Your task to perform on an android device: turn notification dots off Image 0: 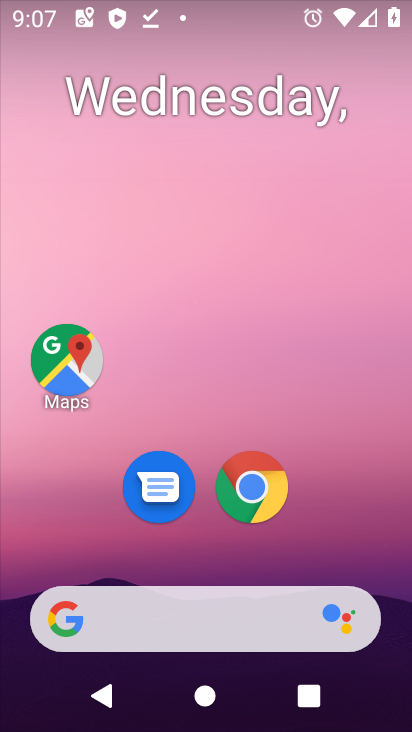
Step 0: drag from (252, 678) to (183, 351)
Your task to perform on an android device: turn notification dots off Image 1: 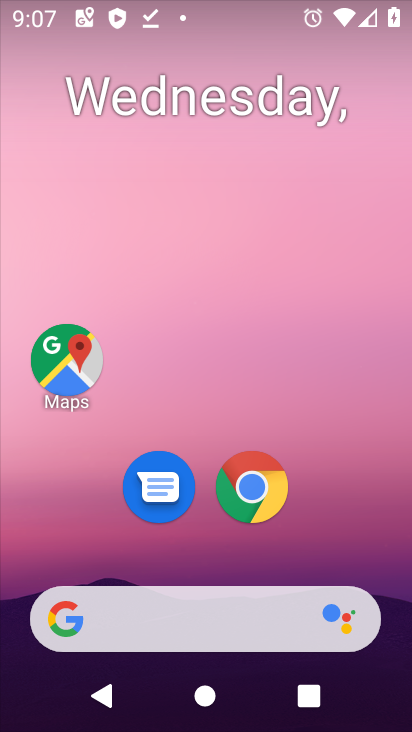
Step 1: drag from (257, 593) to (209, 184)
Your task to perform on an android device: turn notification dots off Image 2: 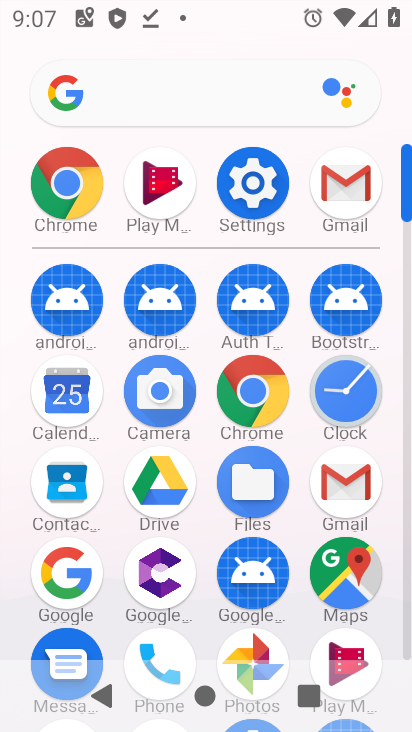
Step 2: click (248, 183)
Your task to perform on an android device: turn notification dots off Image 3: 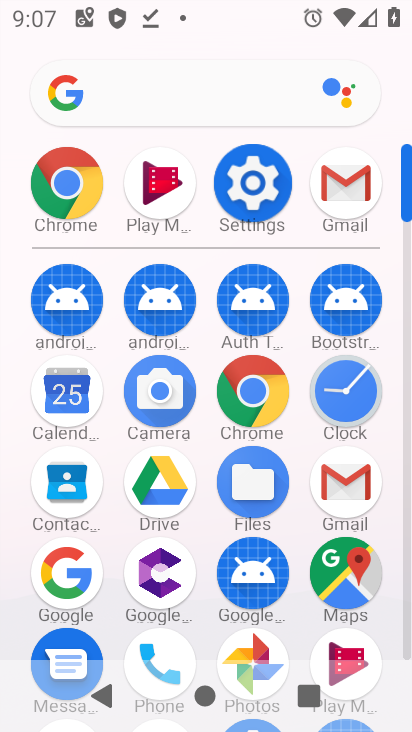
Step 3: click (255, 211)
Your task to perform on an android device: turn notification dots off Image 4: 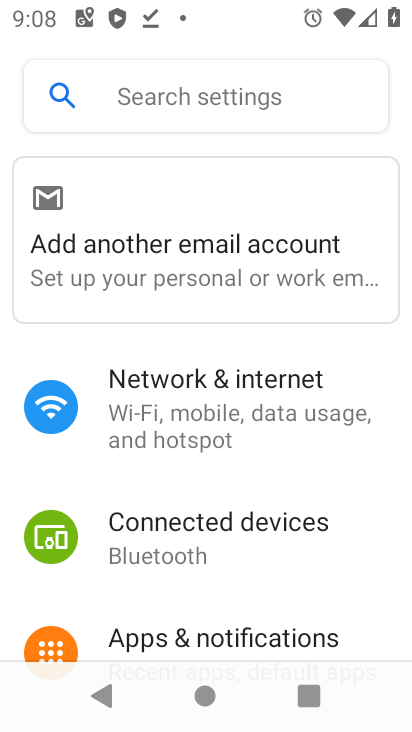
Step 4: drag from (215, 559) to (164, 290)
Your task to perform on an android device: turn notification dots off Image 5: 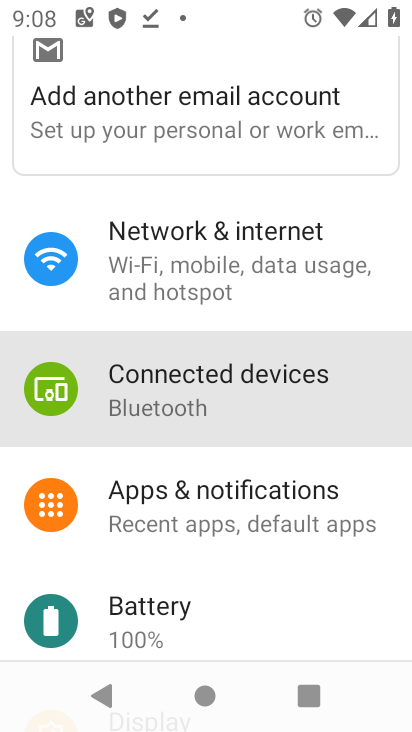
Step 5: drag from (234, 470) to (253, 249)
Your task to perform on an android device: turn notification dots off Image 6: 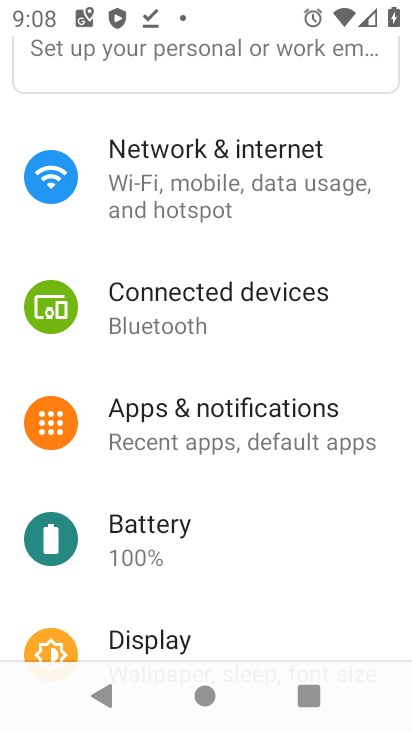
Step 6: click (178, 497)
Your task to perform on an android device: turn notification dots off Image 7: 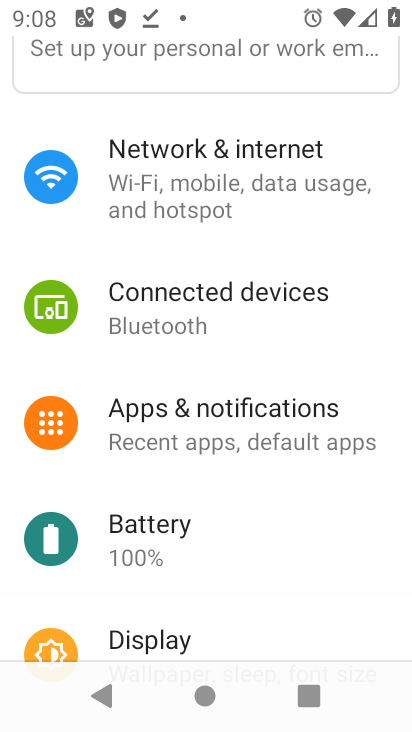
Step 7: click (175, 421)
Your task to perform on an android device: turn notification dots off Image 8: 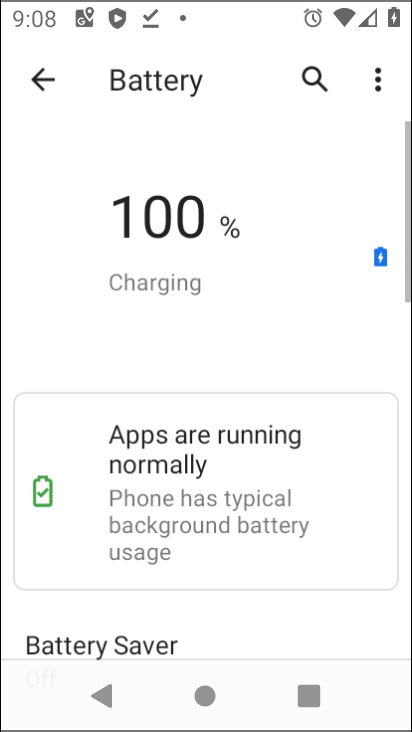
Step 8: click (175, 420)
Your task to perform on an android device: turn notification dots off Image 9: 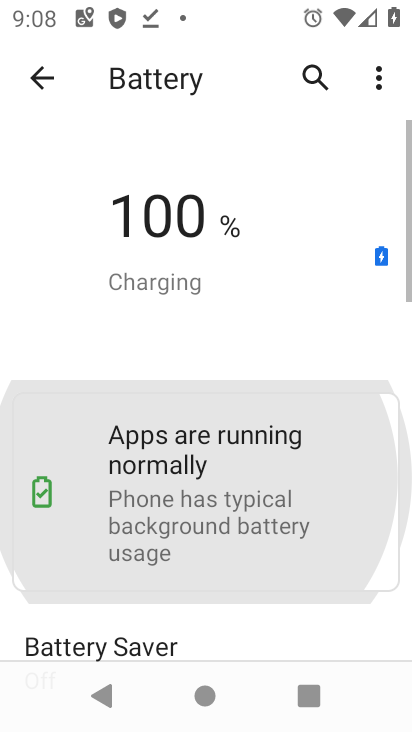
Step 9: click (175, 420)
Your task to perform on an android device: turn notification dots off Image 10: 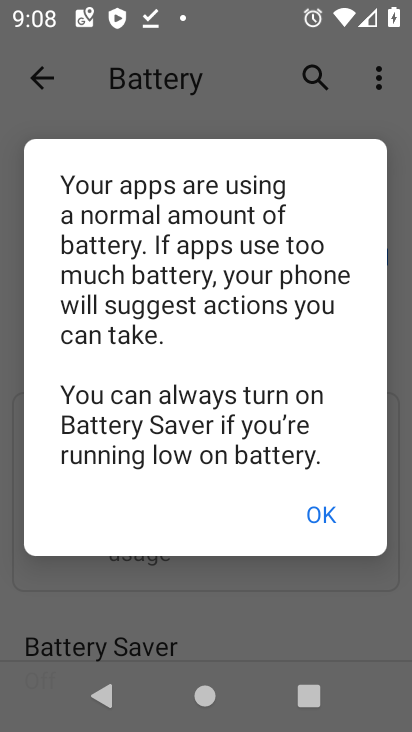
Step 10: click (320, 512)
Your task to perform on an android device: turn notification dots off Image 11: 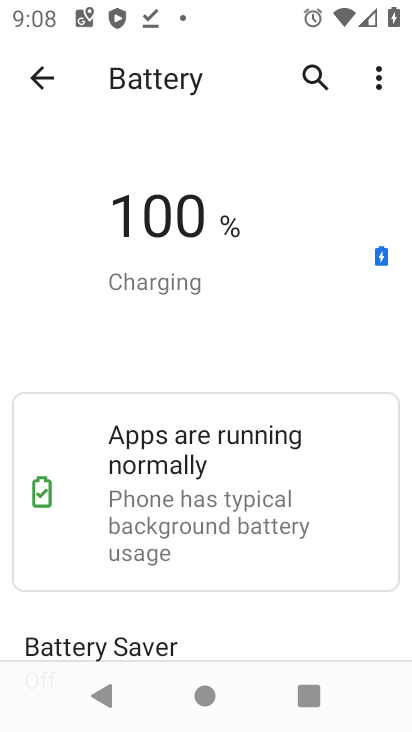
Step 11: click (33, 75)
Your task to perform on an android device: turn notification dots off Image 12: 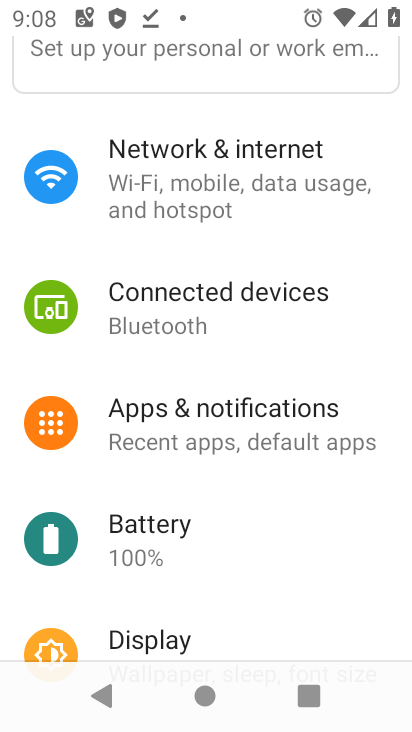
Step 12: click (211, 428)
Your task to perform on an android device: turn notification dots off Image 13: 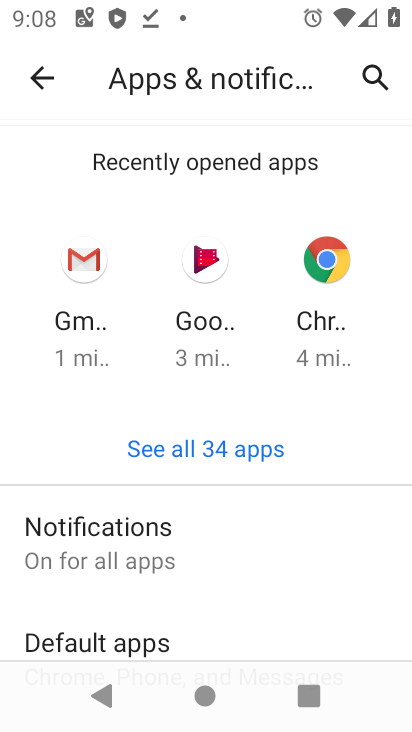
Step 13: drag from (102, 555) to (48, 221)
Your task to perform on an android device: turn notification dots off Image 14: 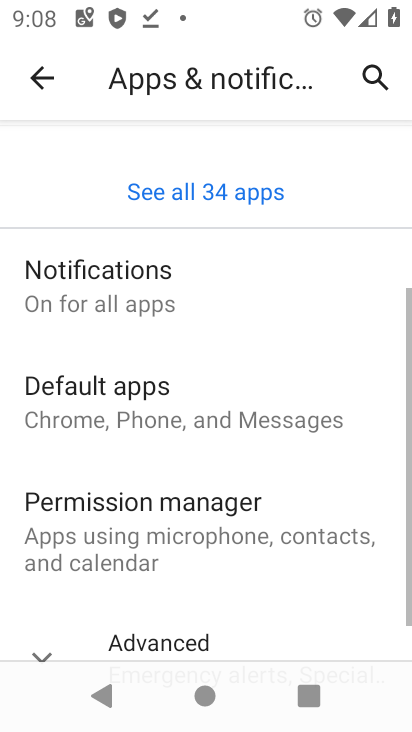
Step 14: drag from (201, 493) to (131, 131)
Your task to perform on an android device: turn notification dots off Image 15: 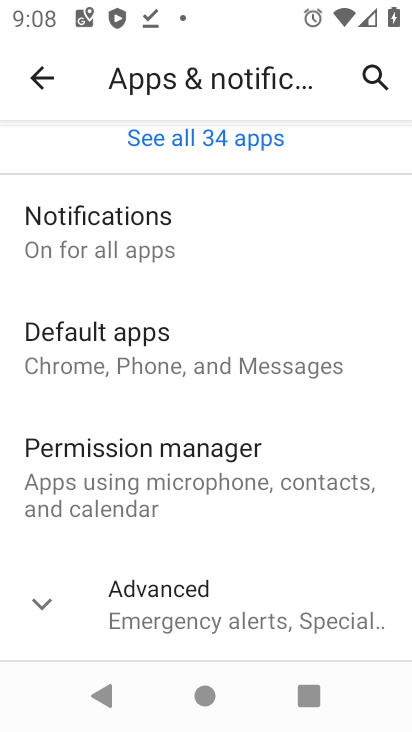
Step 15: drag from (161, 524) to (113, 198)
Your task to perform on an android device: turn notification dots off Image 16: 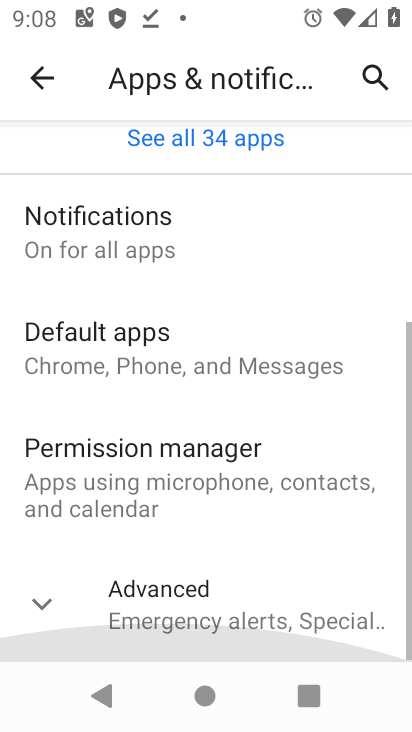
Step 16: drag from (140, 497) to (90, 127)
Your task to perform on an android device: turn notification dots off Image 17: 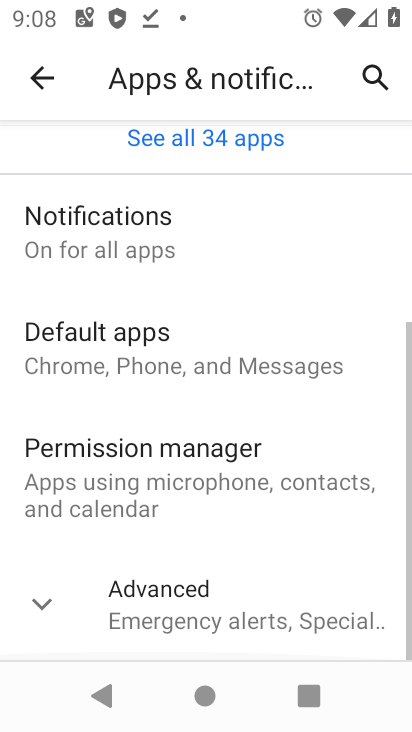
Step 17: click (181, 607)
Your task to perform on an android device: turn notification dots off Image 18: 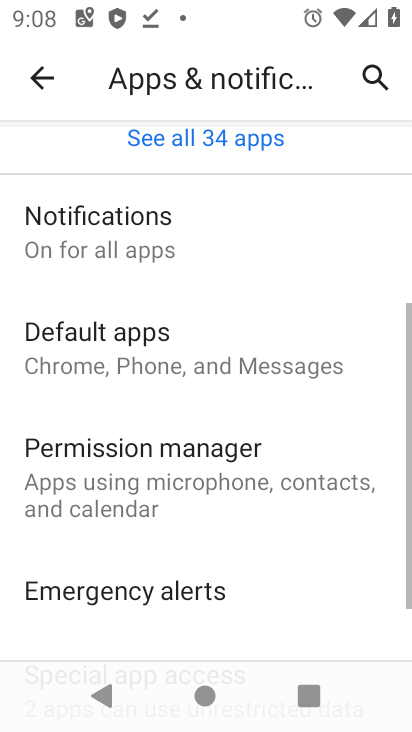
Step 18: drag from (180, 606) to (121, 192)
Your task to perform on an android device: turn notification dots off Image 19: 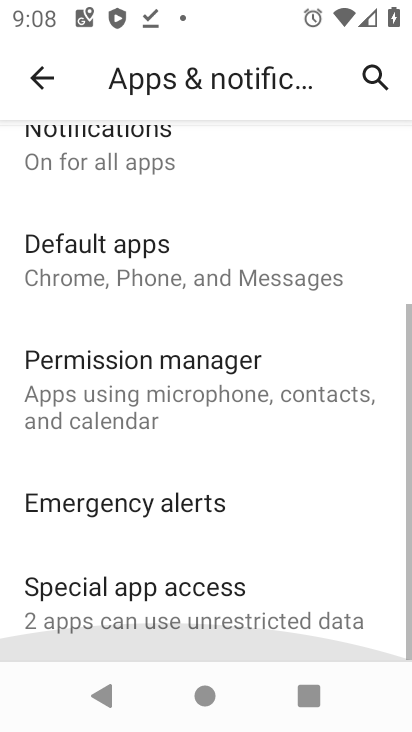
Step 19: drag from (159, 487) to (80, 280)
Your task to perform on an android device: turn notification dots off Image 20: 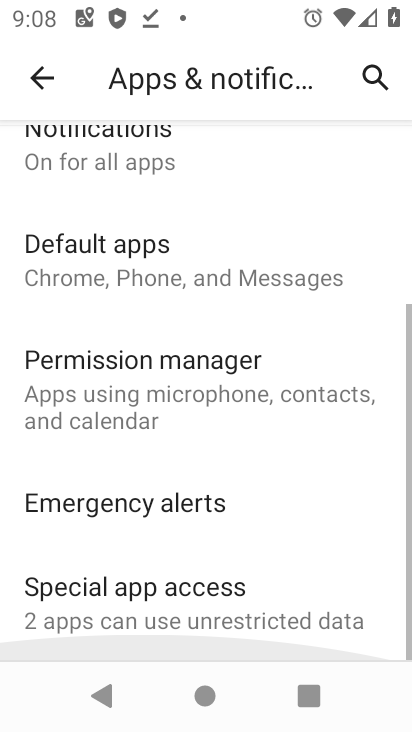
Step 20: drag from (199, 554) to (182, 243)
Your task to perform on an android device: turn notification dots off Image 21: 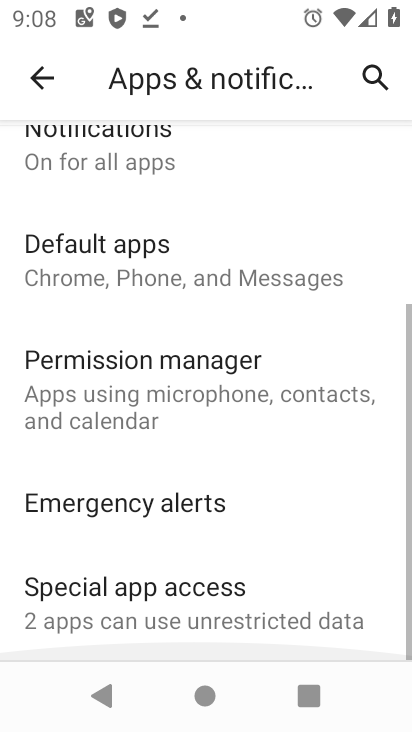
Step 21: drag from (235, 349) to (235, 142)
Your task to perform on an android device: turn notification dots off Image 22: 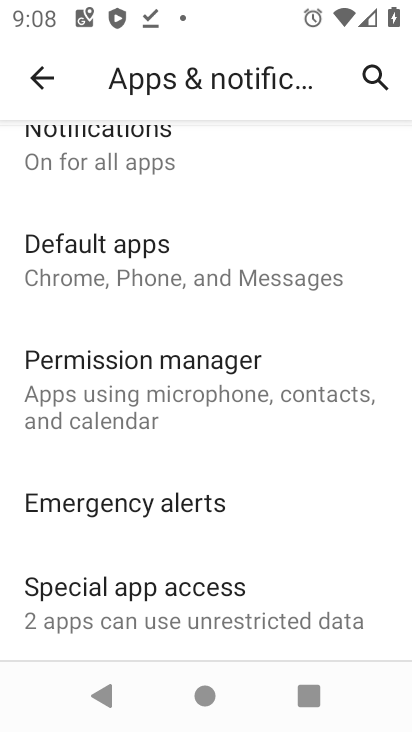
Step 22: drag from (147, 281) to (171, 465)
Your task to perform on an android device: turn notification dots off Image 23: 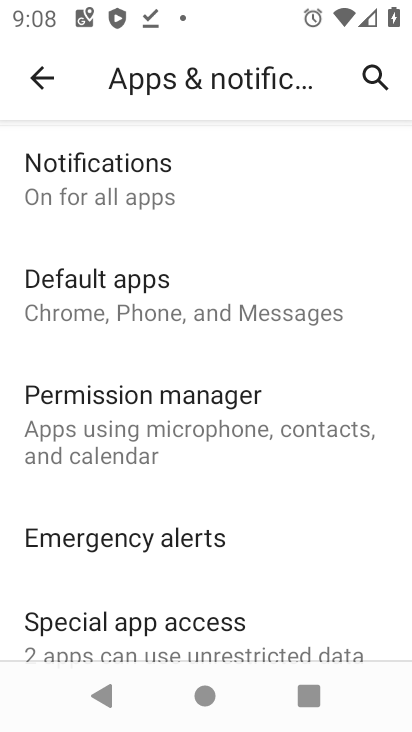
Step 23: click (88, 176)
Your task to perform on an android device: turn notification dots off Image 24: 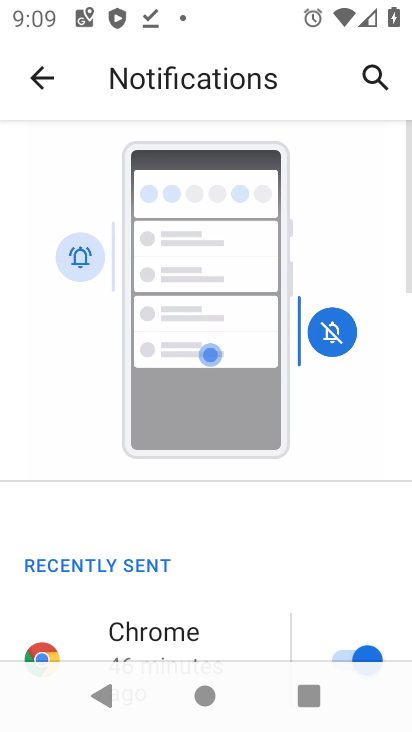
Step 24: drag from (245, 522) to (195, 232)
Your task to perform on an android device: turn notification dots off Image 25: 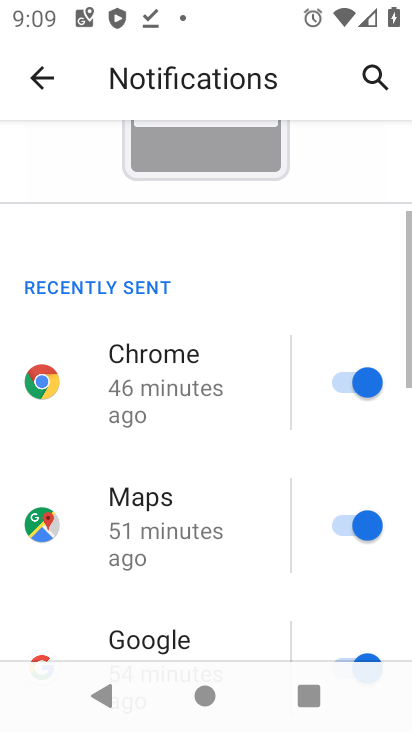
Step 25: drag from (237, 480) to (160, 104)
Your task to perform on an android device: turn notification dots off Image 26: 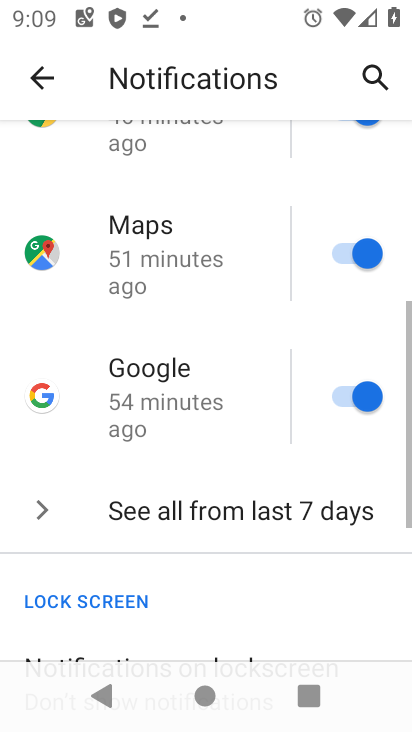
Step 26: drag from (228, 451) to (169, 189)
Your task to perform on an android device: turn notification dots off Image 27: 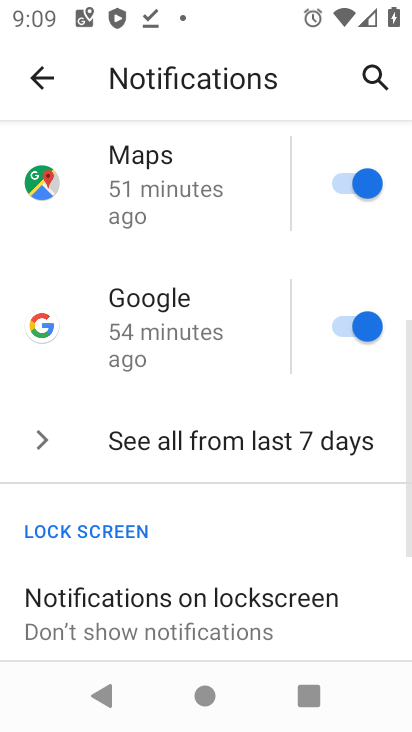
Step 27: click (156, 111)
Your task to perform on an android device: turn notification dots off Image 28: 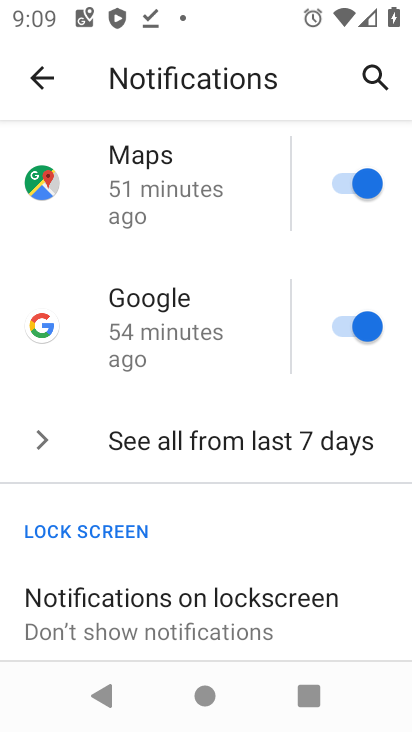
Step 28: drag from (186, 411) to (172, 100)
Your task to perform on an android device: turn notification dots off Image 29: 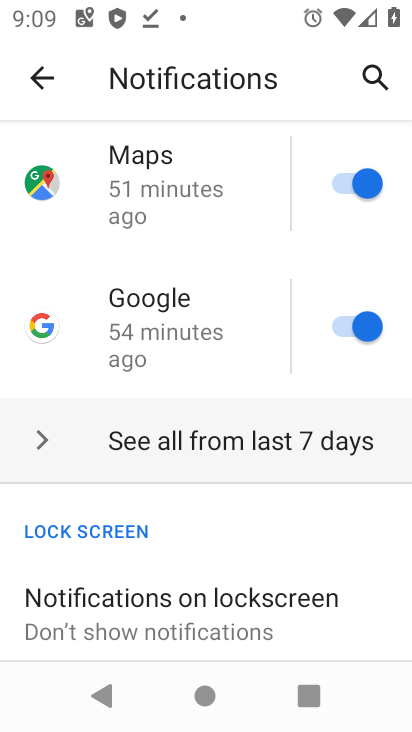
Step 29: drag from (259, 535) to (204, 171)
Your task to perform on an android device: turn notification dots off Image 30: 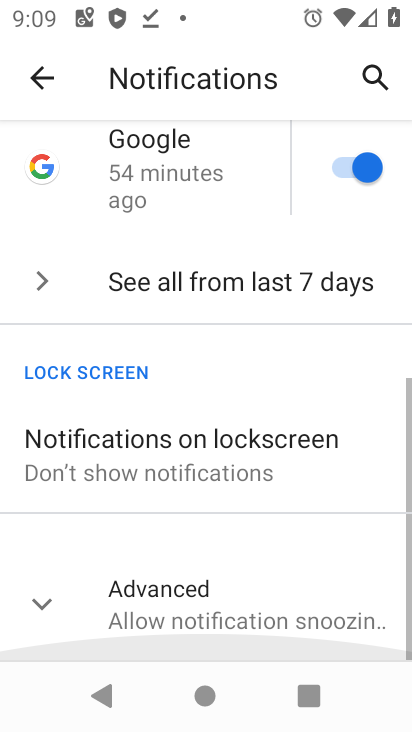
Step 30: drag from (244, 523) to (196, 140)
Your task to perform on an android device: turn notification dots off Image 31: 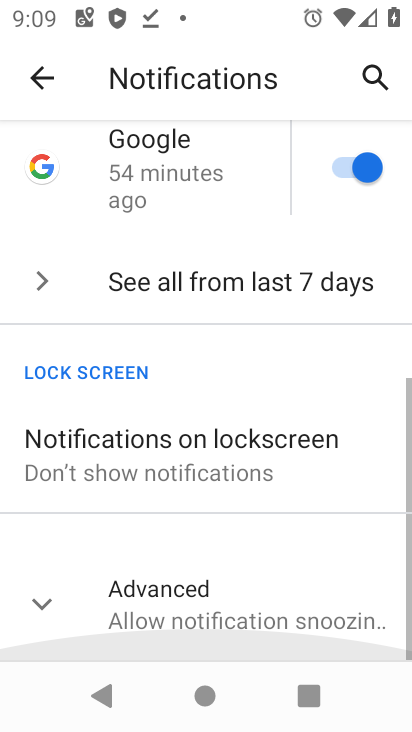
Step 31: drag from (241, 544) to (179, 90)
Your task to perform on an android device: turn notification dots off Image 32: 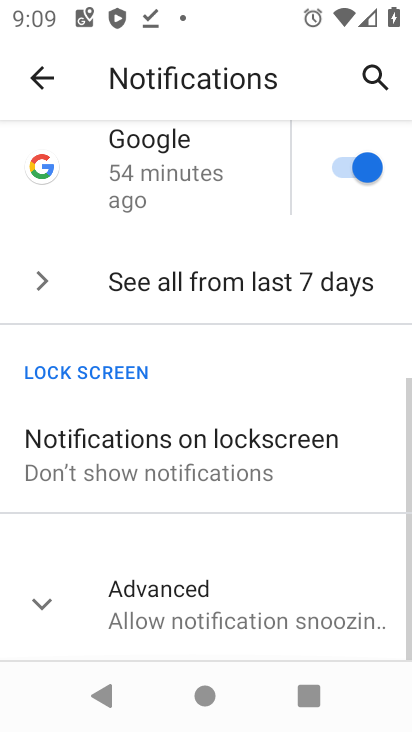
Step 32: click (213, 598)
Your task to perform on an android device: turn notification dots off Image 33: 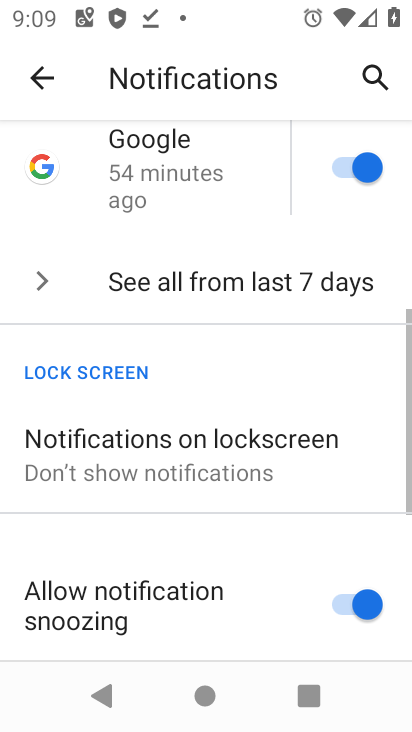
Step 33: drag from (223, 530) to (133, 189)
Your task to perform on an android device: turn notification dots off Image 34: 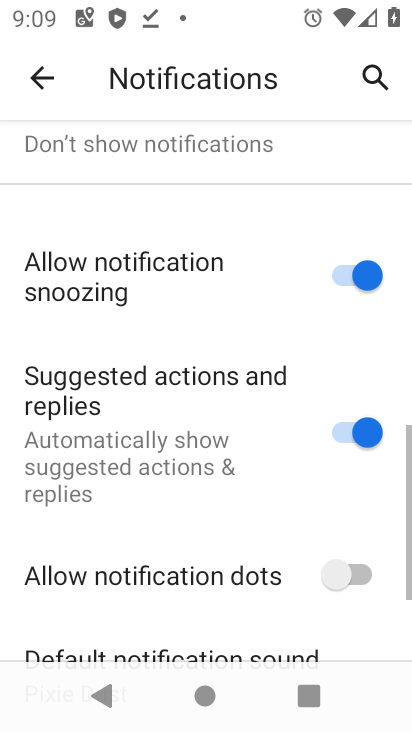
Step 34: drag from (195, 553) to (145, 155)
Your task to perform on an android device: turn notification dots off Image 35: 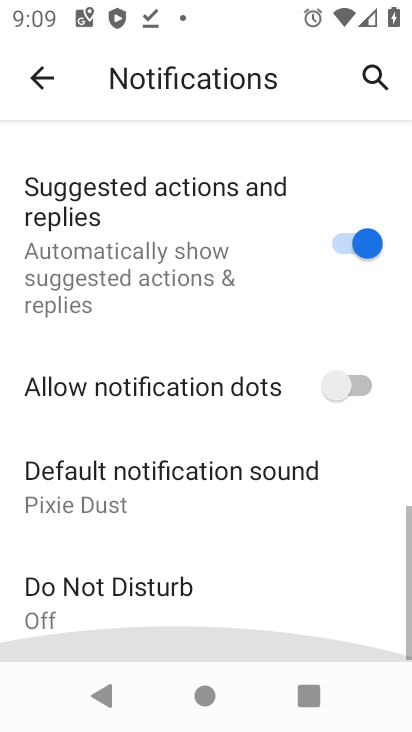
Step 35: drag from (260, 468) to (275, 206)
Your task to perform on an android device: turn notification dots off Image 36: 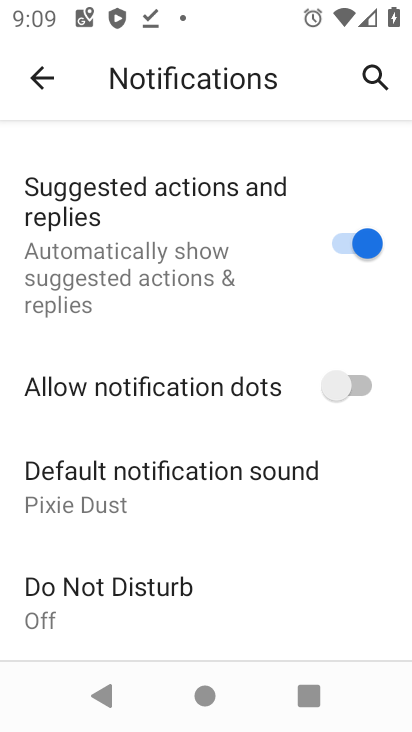
Step 36: click (331, 376)
Your task to perform on an android device: turn notification dots off Image 37: 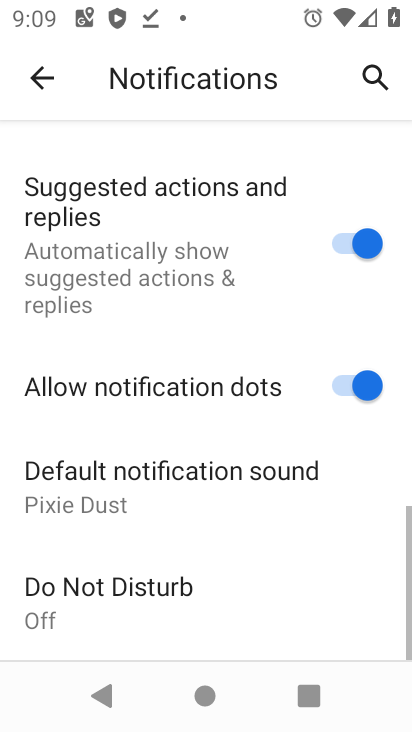
Step 37: click (366, 374)
Your task to perform on an android device: turn notification dots off Image 38: 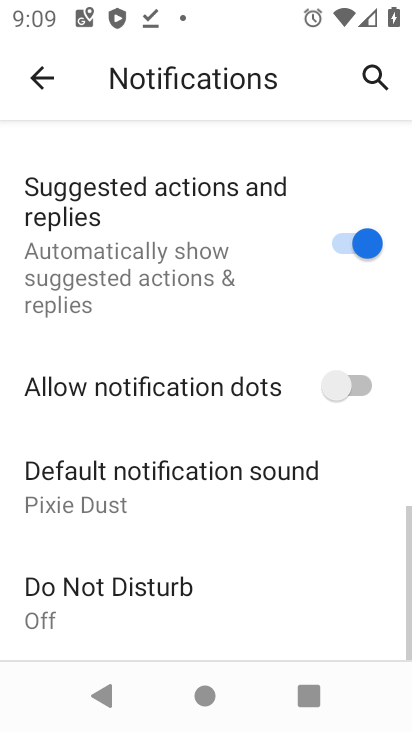
Step 38: task complete